Your task to perform on an android device: set default search engine in the chrome app Image 0: 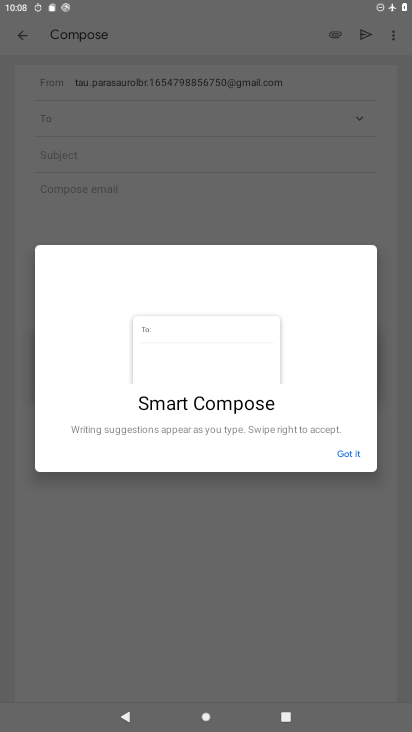
Step 0: press home button
Your task to perform on an android device: set default search engine in the chrome app Image 1: 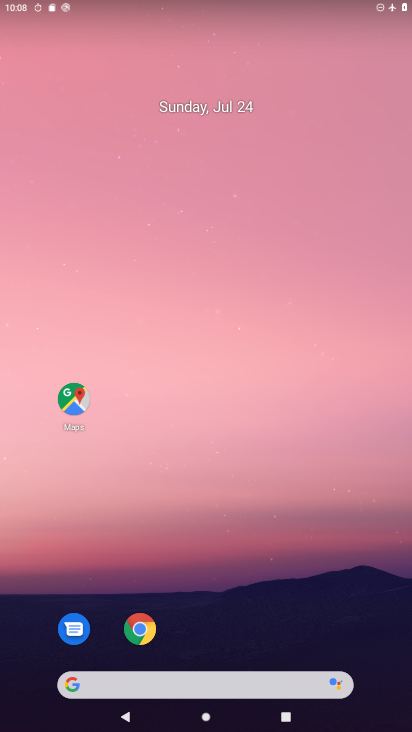
Step 1: drag from (170, 615) to (44, 9)
Your task to perform on an android device: set default search engine in the chrome app Image 2: 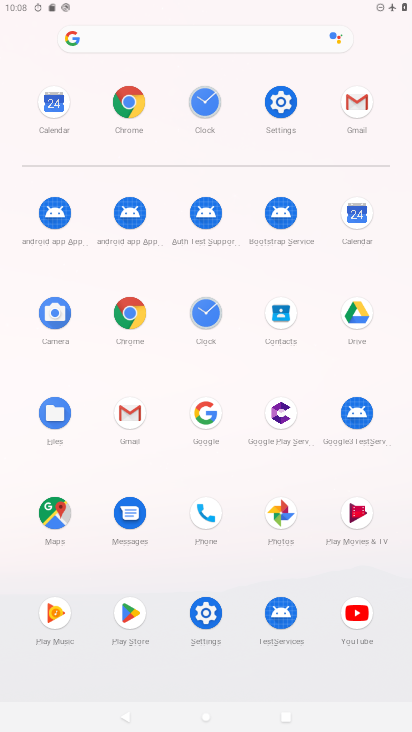
Step 2: click (134, 130)
Your task to perform on an android device: set default search engine in the chrome app Image 3: 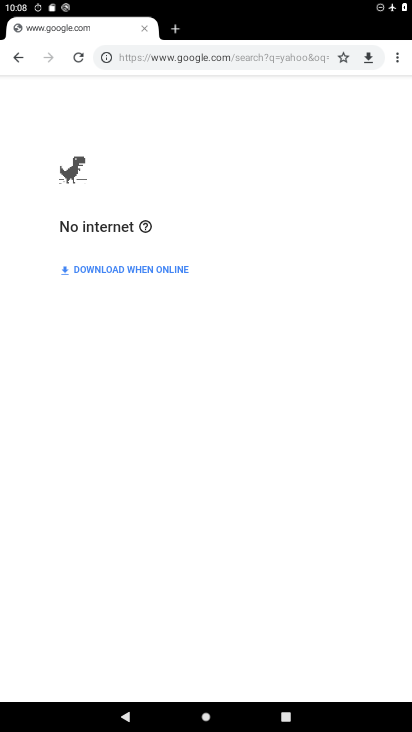
Step 3: click (394, 65)
Your task to perform on an android device: set default search engine in the chrome app Image 4: 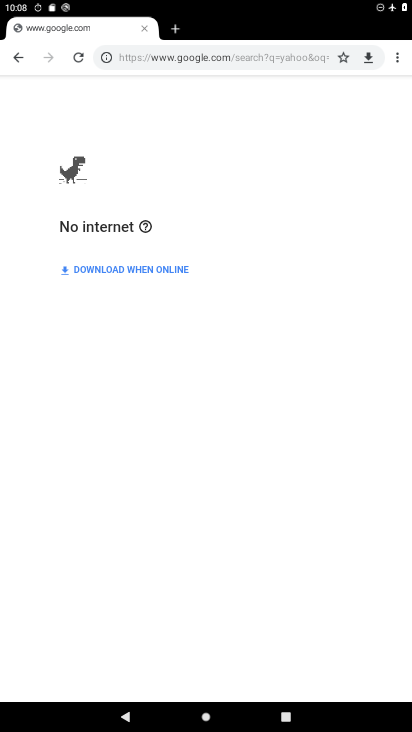
Step 4: click (400, 61)
Your task to perform on an android device: set default search engine in the chrome app Image 5: 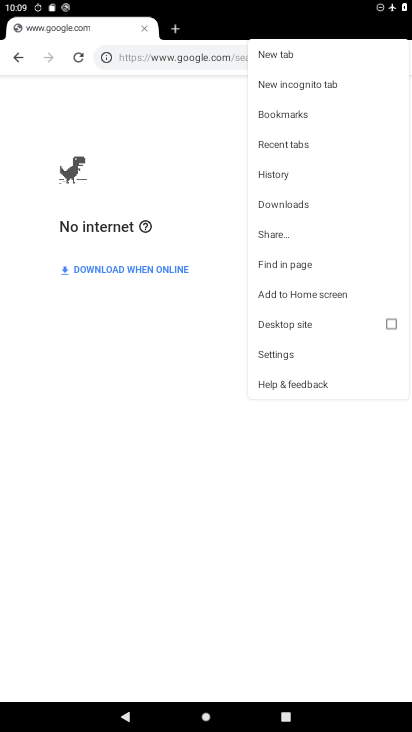
Step 5: click (283, 358)
Your task to perform on an android device: set default search engine in the chrome app Image 6: 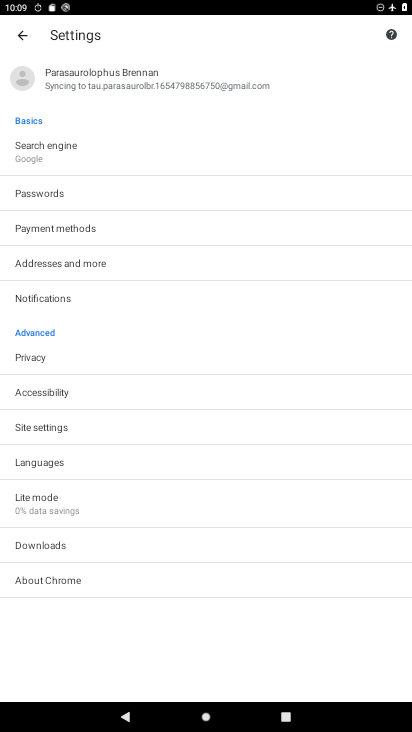
Step 6: click (81, 166)
Your task to perform on an android device: set default search engine in the chrome app Image 7: 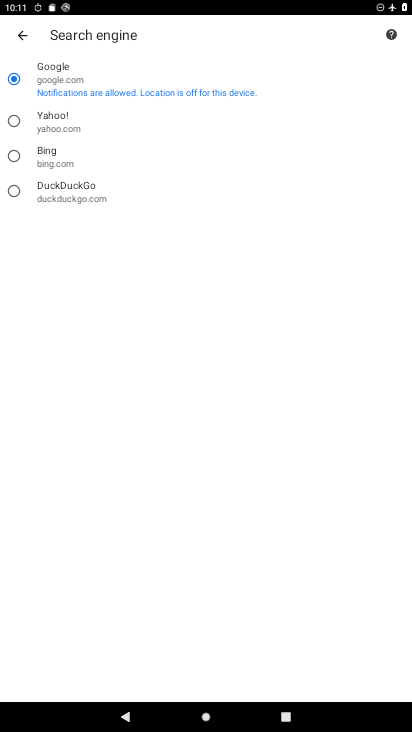
Step 7: task complete